Your task to perform on an android device: check out phone information Image 0: 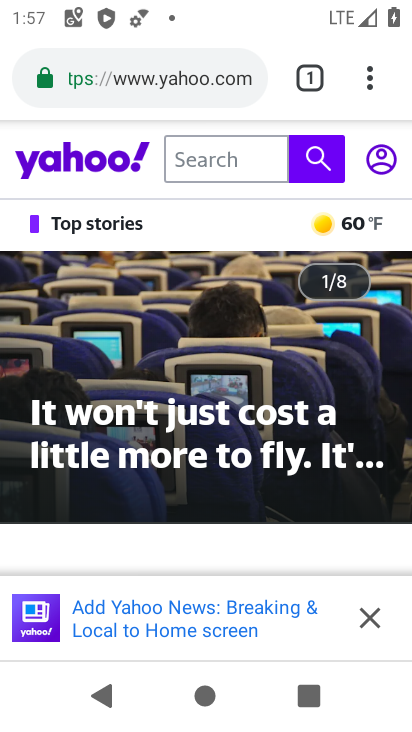
Step 0: press home button
Your task to perform on an android device: check out phone information Image 1: 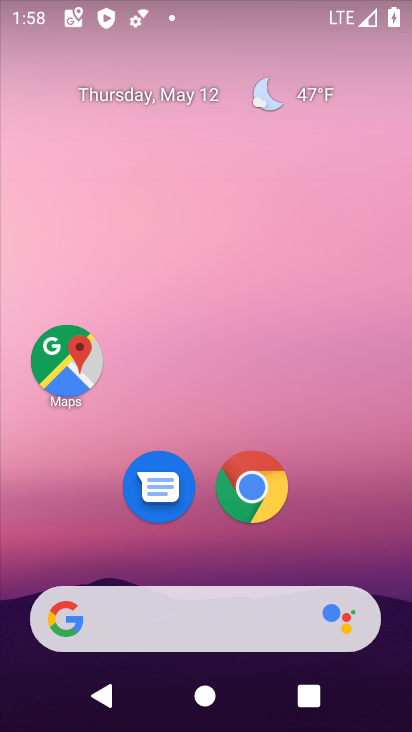
Step 1: drag from (346, 515) to (302, 32)
Your task to perform on an android device: check out phone information Image 2: 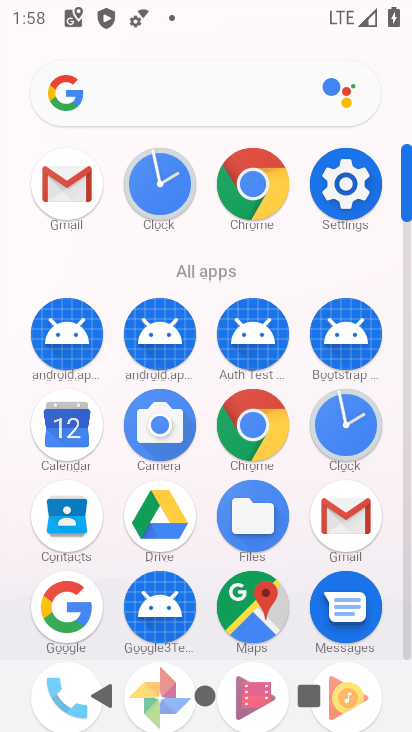
Step 2: drag from (209, 570) to (260, 304)
Your task to perform on an android device: check out phone information Image 3: 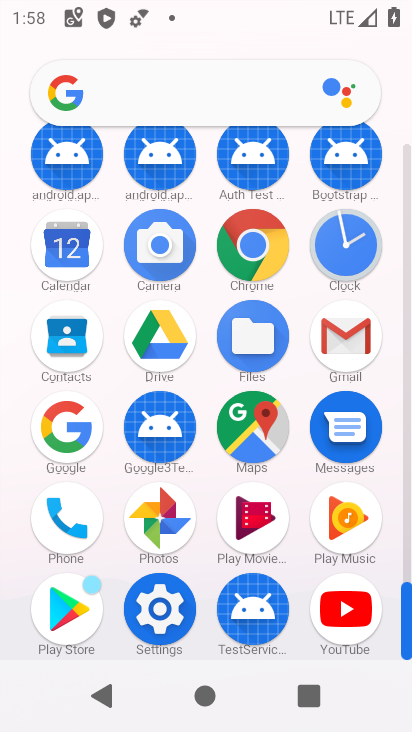
Step 3: click (73, 531)
Your task to perform on an android device: check out phone information Image 4: 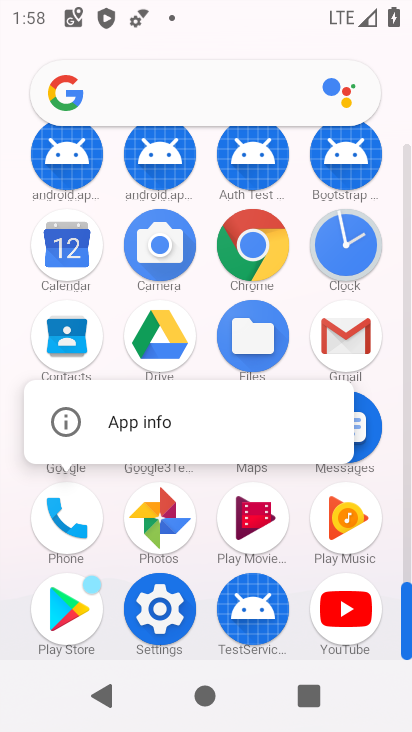
Step 4: click (174, 411)
Your task to perform on an android device: check out phone information Image 5: 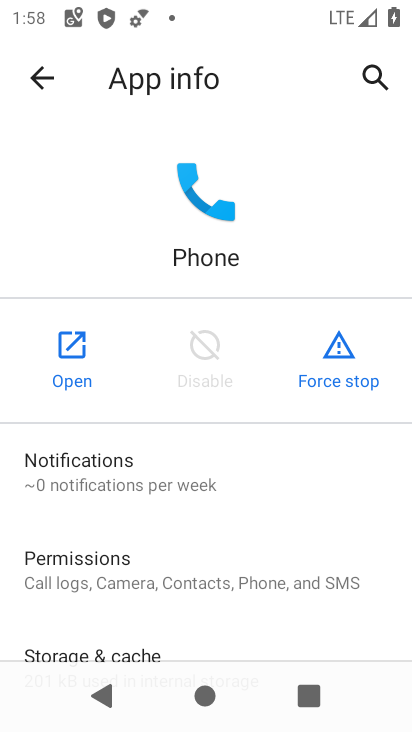
Step 5: task complete